Your task to perform on an android device: Search for Mexican restaurants on Maps Image 0: 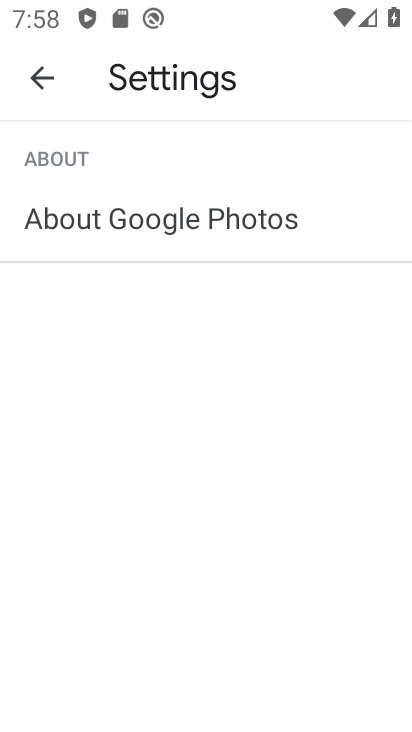
Step 0: press home button
Your task to perform on an android device: Search for Mexican restaurants on Maps Image 1: 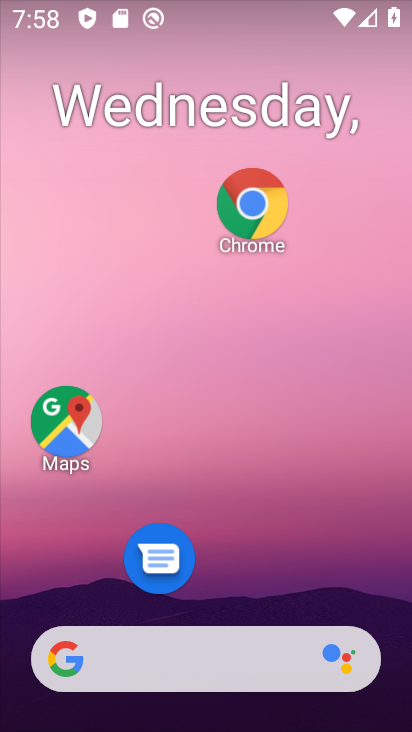
Step 1: click (59, 422)
Your task to perform on an android device: Search for Mexican restaurants on Maps Image 2: 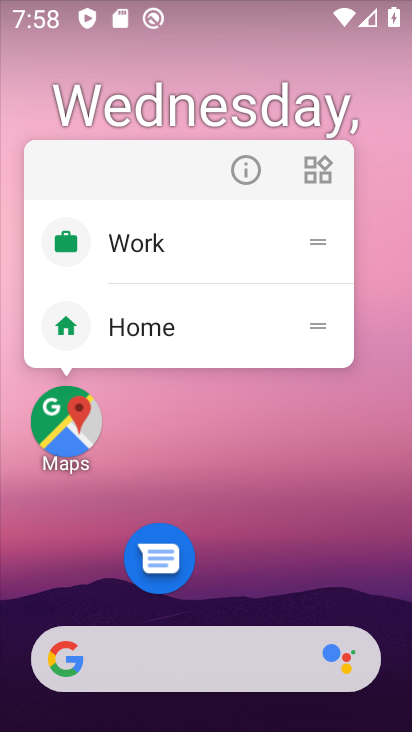
Step 2: click (62, 420)
Your task to perform on an android device: Search for Mexican restaurants on Maps Image 3: 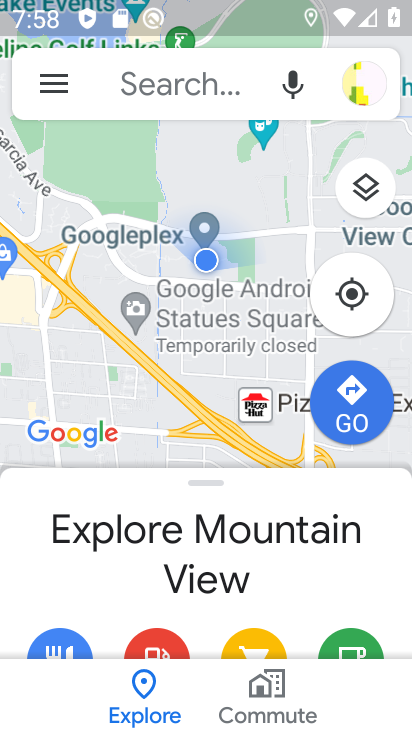
Step 3: click (176, 85)
Your task to perform on an android device: Search for Mexican restaurants on Maps Image 4: 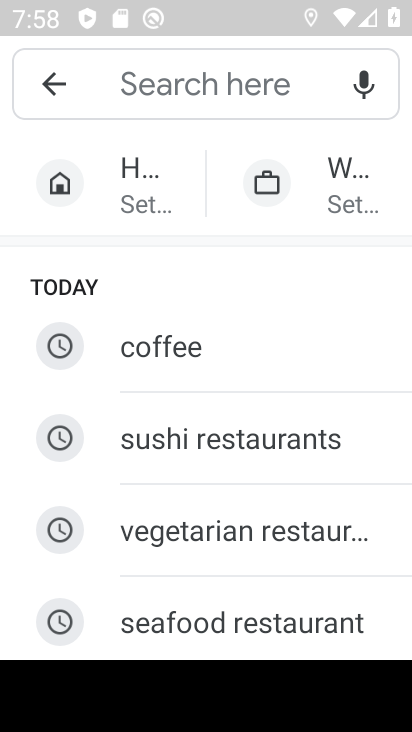
Step 4: drag from (218, 576) to (254, 155)
Your task to perform on an android device: Search for Mexican restaurants on Maps Image 5: 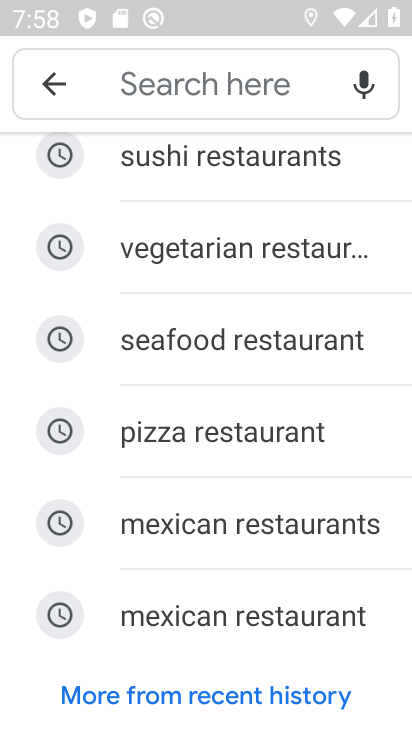
Step 5: click (206, 533)
Your task to perform on an android device: Search for Mexican restaurants on Maps Image 6: 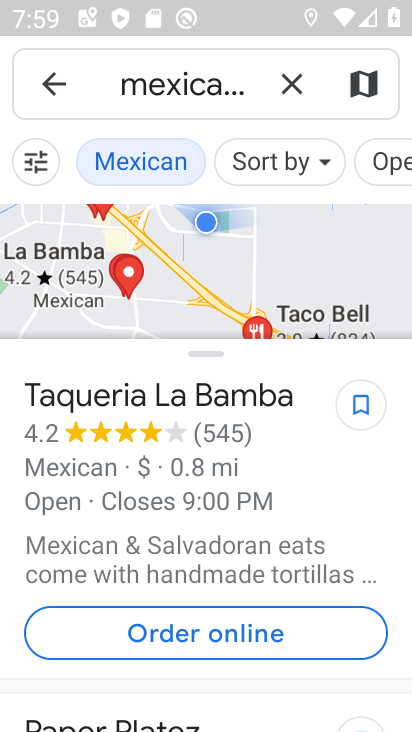
Step 6: task complete